Your task to perform on an android device: open sync settings in chrome Image 0: 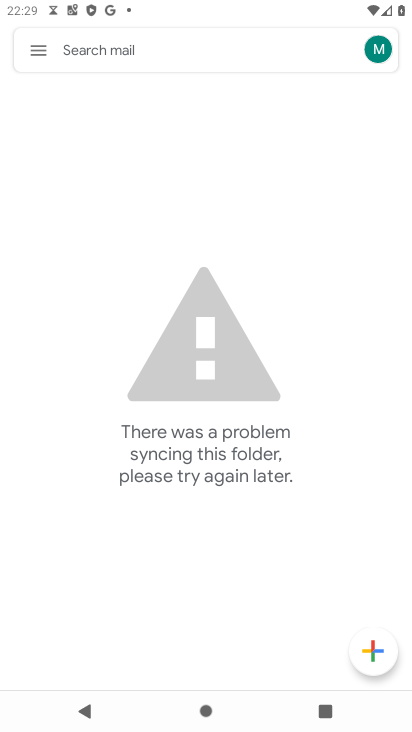
Step 0: press home button
Your task to perform on an android device: open sync settings in chrome Image 1: 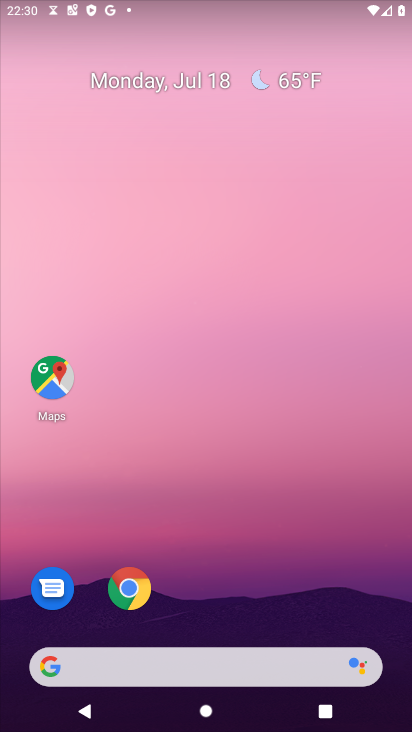
Step 1: click (126, 590)
Your task to perform on an android device: open sync settings in chrome Image 2: 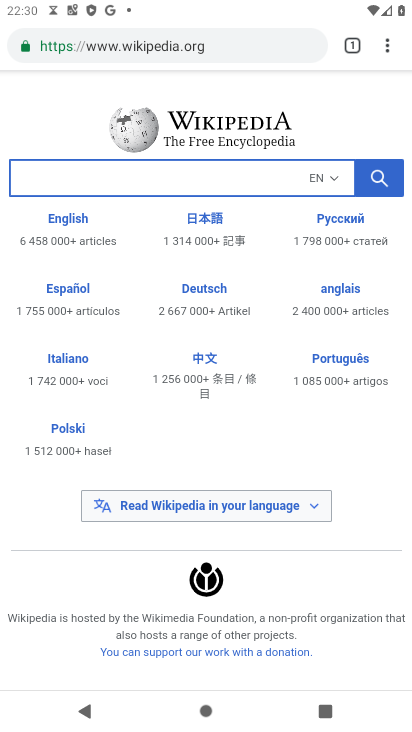
Step 2: click (387, 46)
Your task to perform on an android device: open sync settings in chrome Image 3: 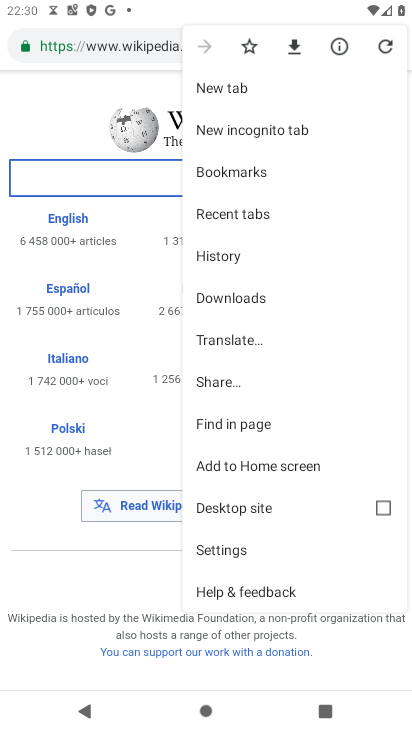
Step 3: click (229, 555)
Your task to perform on an android device: open sync settings in chrome Image 4: 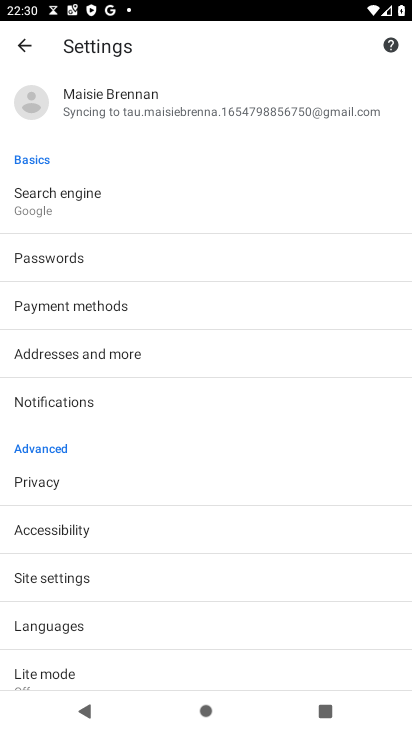
Step 4: click (66, 574)
Your task to perform on an android device: open sync settings in chrome Image 5: 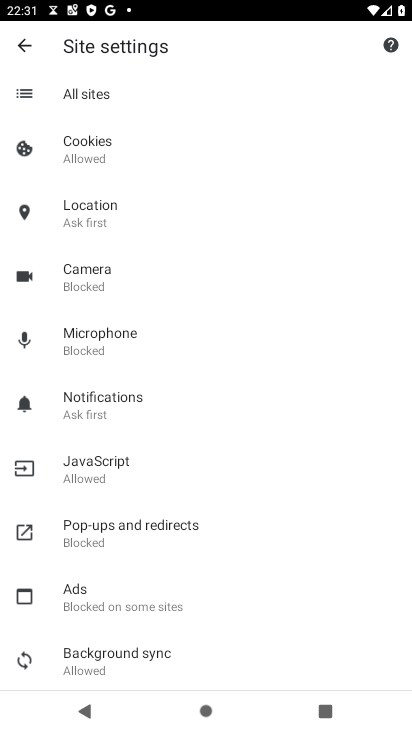
Step 5: click (106, 651)
Your task to perform on an android device: open sync settings in chrome Image 6: 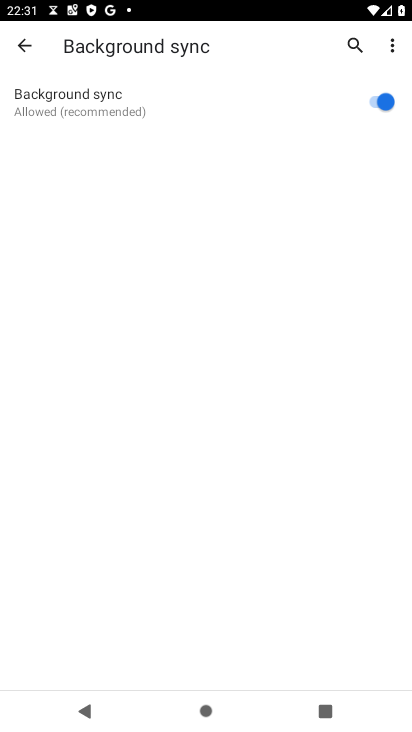
Step 6: task complete